Your task to perform on an android device: Go to accessibility settings Image 0: 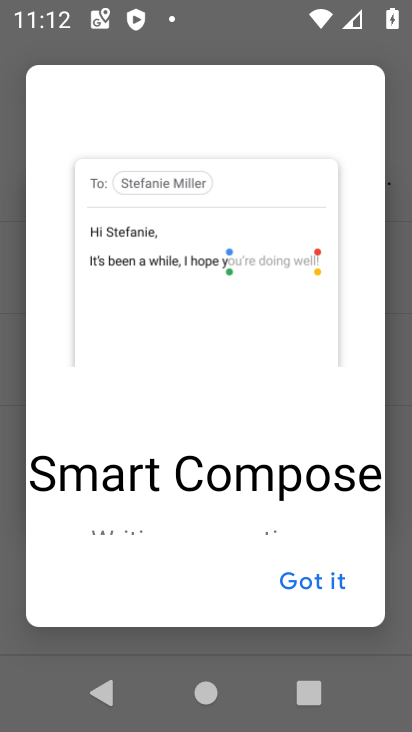
Step 0: press home button
Your task to perform on an android device: Go to accessibility settings Image 1: 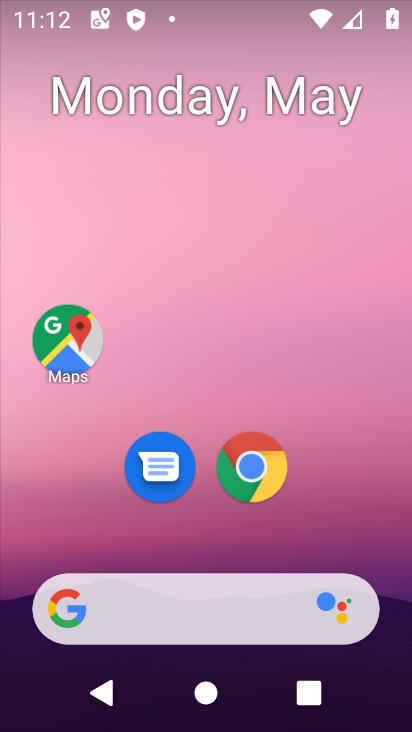
Step 1: drag from (296, 539) to (338, 11)
Your task to perform on an android device: Go to accessibility settings Image 2: 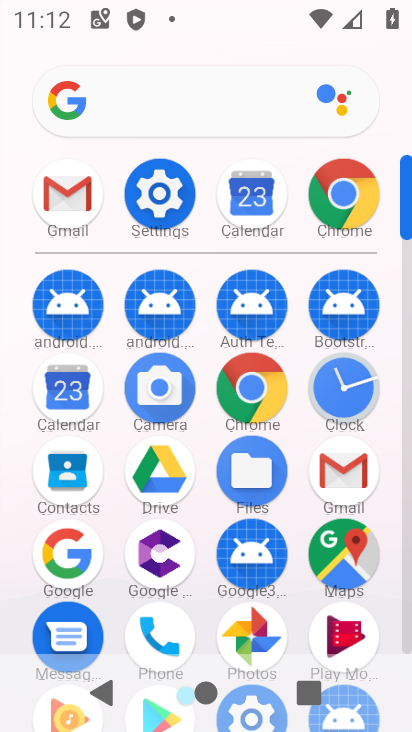
Step 2: click (144, 196)
Your task to perform on an android device: Go to accessibility settings Image 3: 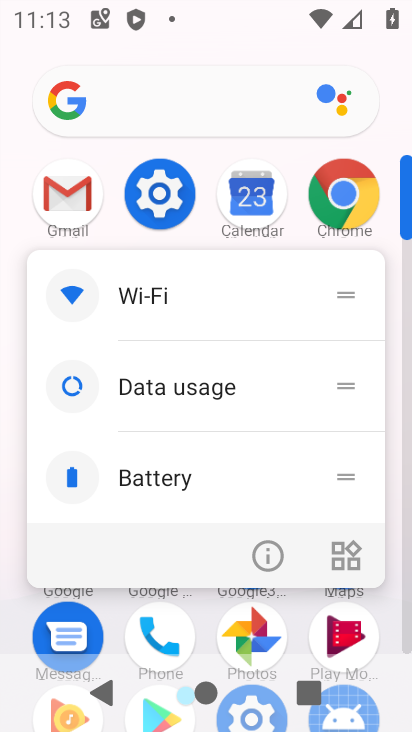
Step 3: click (183, 195)
Your task to perform on an android device: Go to accessibility settings Image 4: 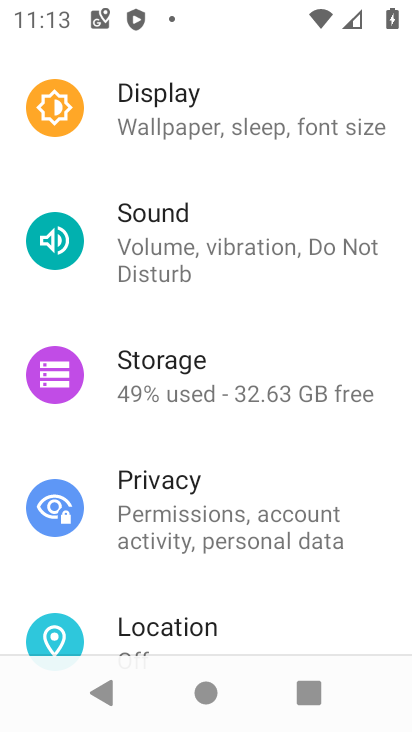
Step 4: drag from (233, 613) to (282, 138)
Your task to perform on an android device: Go to accessibility settings Image 5: 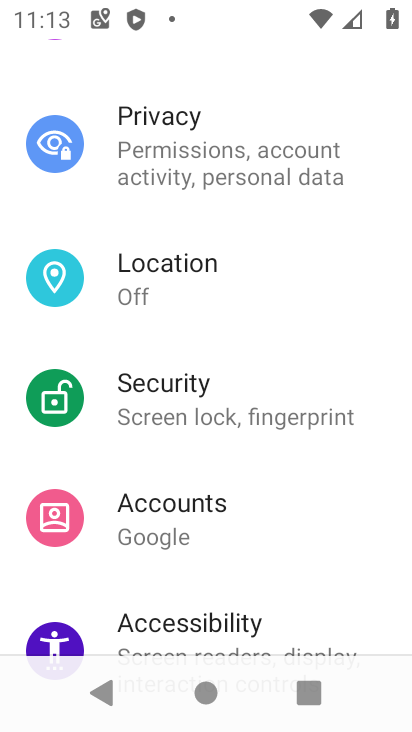
Step 5: drag from (234, 516) to (282, 156)
Your task to perform on an android device: Go to accessibility settings Image 6: 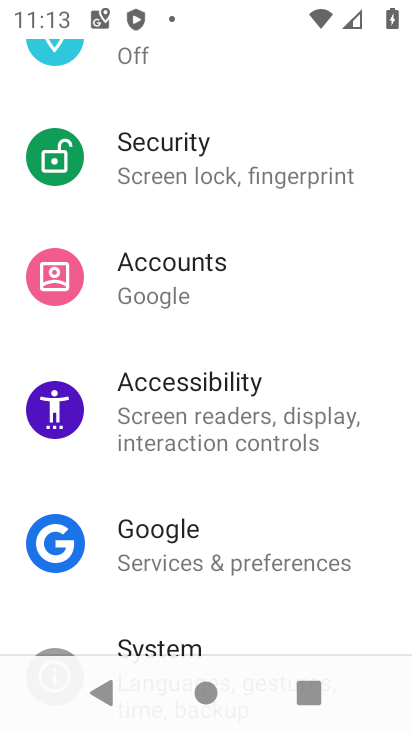
Step 6: drag from (206, 534) to (196, 217)
Your task to perform on an android device: Go to accessibility settings Image 7: 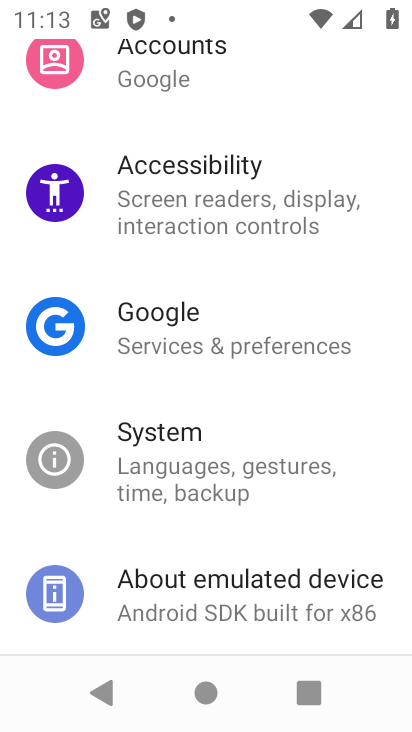
Step 7: click (191, 198)
Your task to perform on an android device: Go to accessibility settings Image 8: 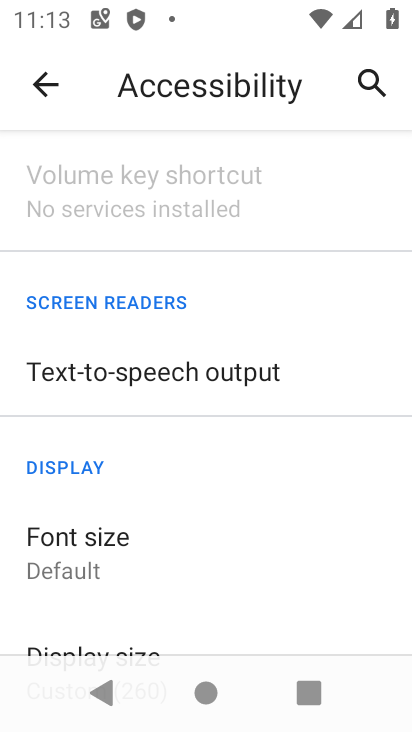
Step 8: task complete